Your task to perform on an android device: clear all cookies in the chrome app Image 0: 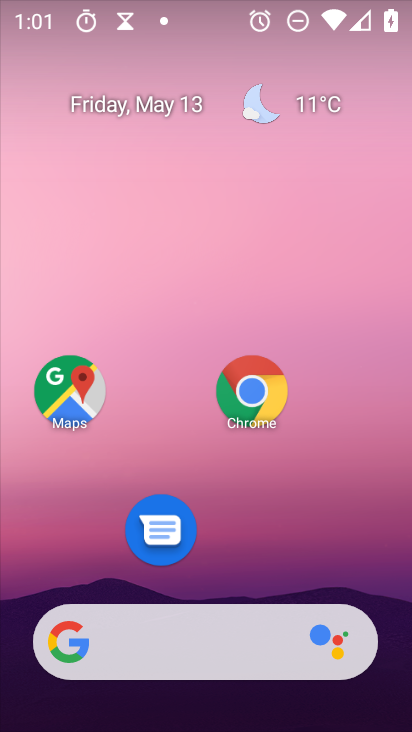
Step 0: press home button
Your task to perform on an android device: clear all cookies in the chrome app Image 1: 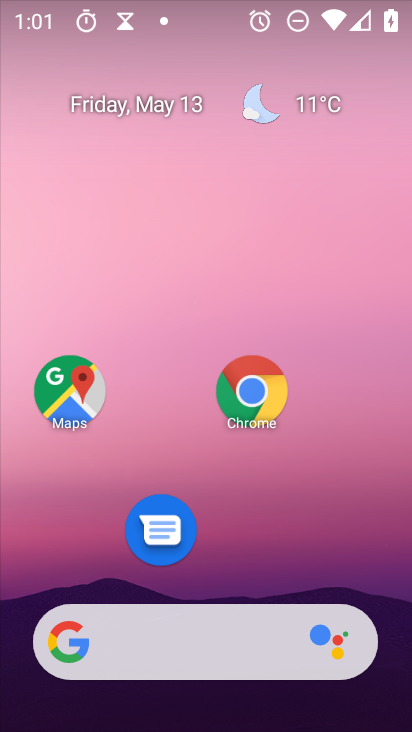
Step 1: click (253, 410)
Your task to perform on an android device: clear all cookies in the chrome app Image 2: 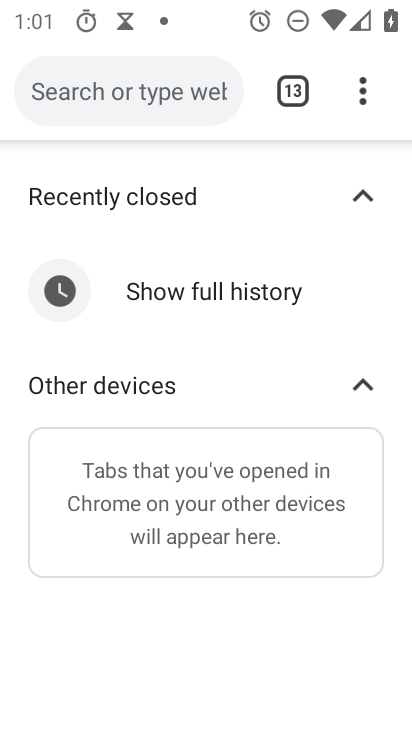
Step 2: drag from (361, 97) to (205, 559)
Your task to perform on an android device: clear all cookies in the chrome app Image 3: 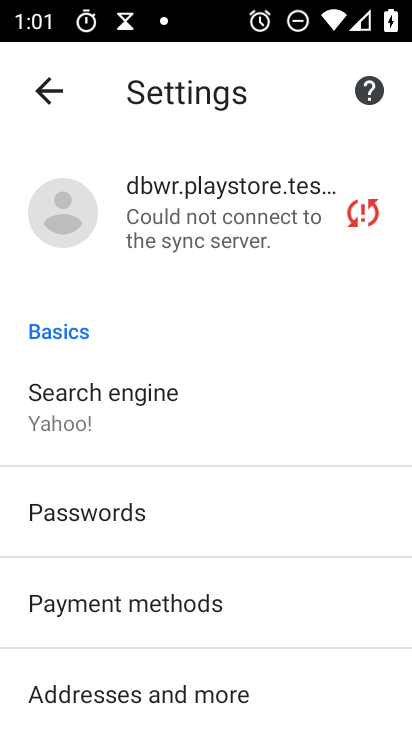
Step 3: drag from (215, 655) to (232, 373)
Your task to perform on an android device: clear all cookies in the chrome app Image 4: 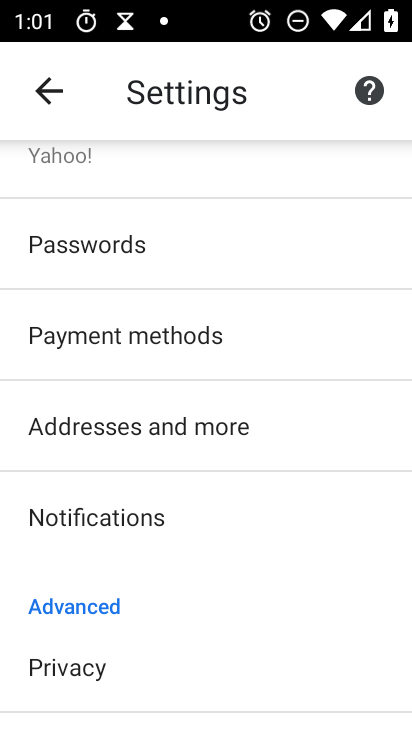
Step 4: drag from (209, 676) to (286, 297)
Your task to perform on an android device: clear all cookies in the chrome app Image 5: 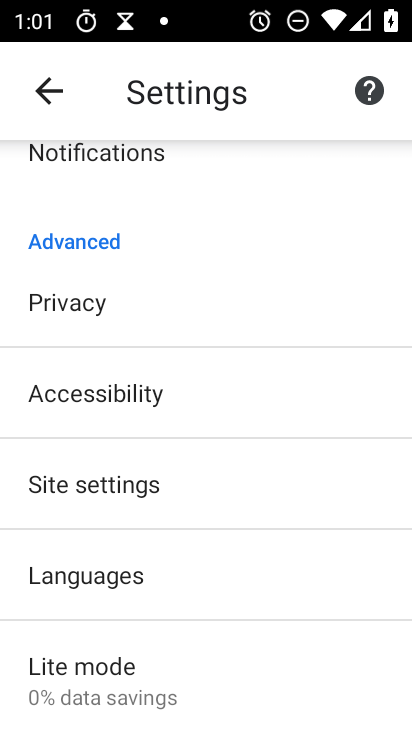
Step 5: click (86, 300)
Your task to perform on an android device: clear all cookies in the chrome app Image 6: 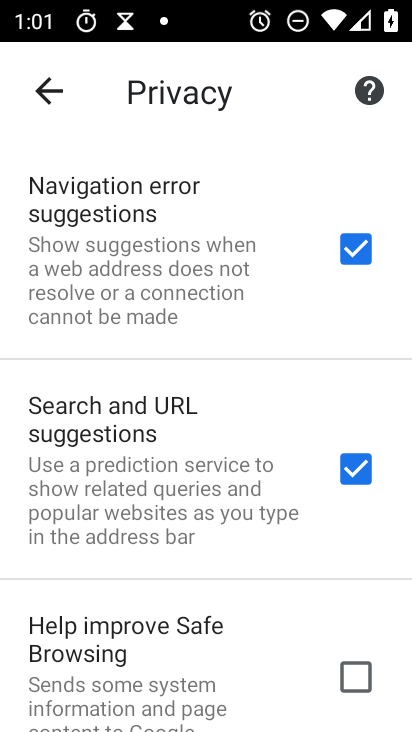
Step 6: drag from (211, 695) to (307, 92)
Your task to perform on an android device: clear all cookies in the chrome app Image 7: 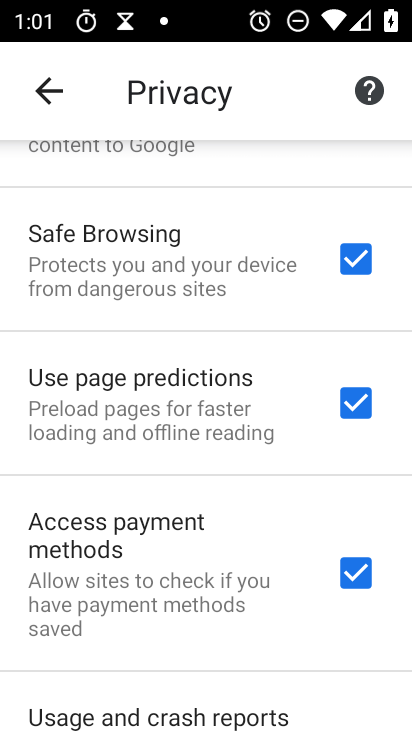
Step 7: drag from (221, 659) to (328, 126)
Your task to perform on an android device: clear all cookies in the chrome app Image 8: 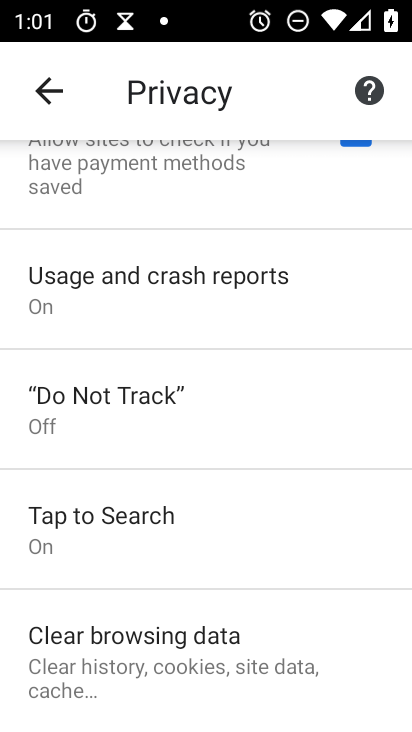
Step 8: drag from (235, 633) to (348, 79)
Your task to perform on an android device: clear all cookies in the chrome app Image 9: 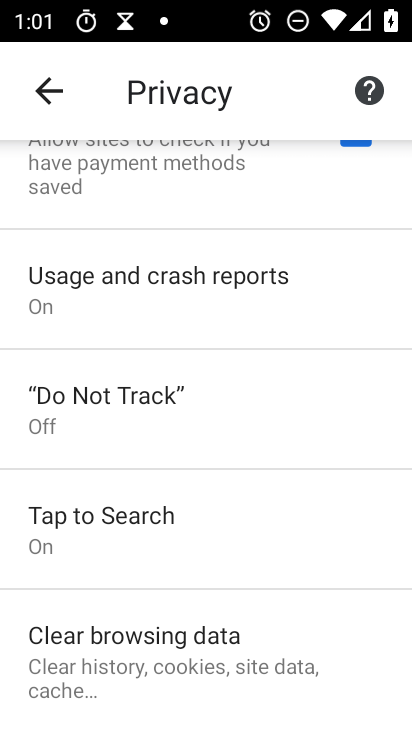
Step 9: click (191, 645)
Your task to perform on an android device: clear all cookies in the chrome app Image 10: 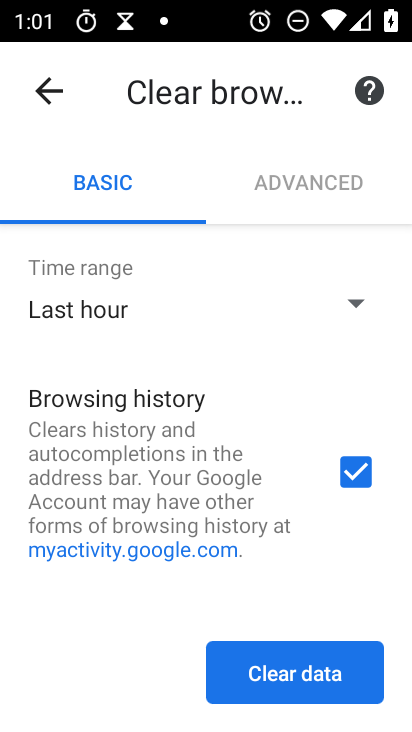
Step 10: click (357, 464)
Your task to perform on an android device: clear all cookies in the chrome app Image 11: 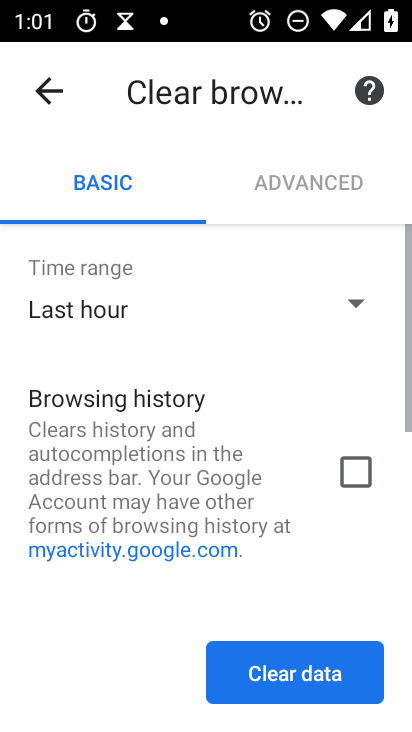
Step 11: drag from (307, 265) to (312, 199)
Your task to perform on an android device: clear all cookies in the chrome app Image 12: 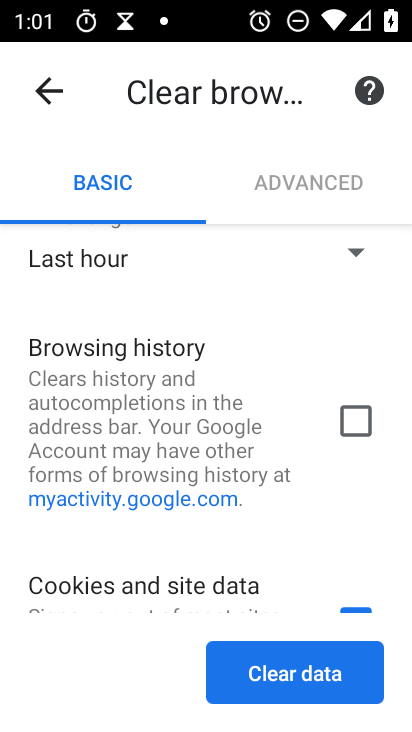
Step 12: drag from (202, 572) to (363, 124)
Your task to perform on an android device: clear all cookies in the chrome app Image 13: 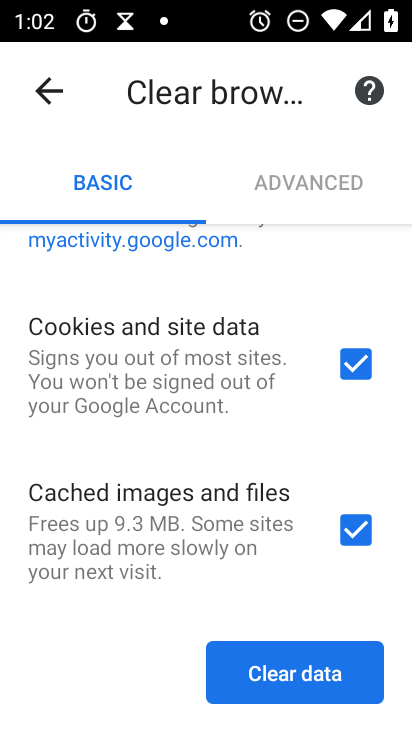
Step 13: click (362, 534)
Your task to perform on an android device: clear all cookies in the chrome app Image 14: 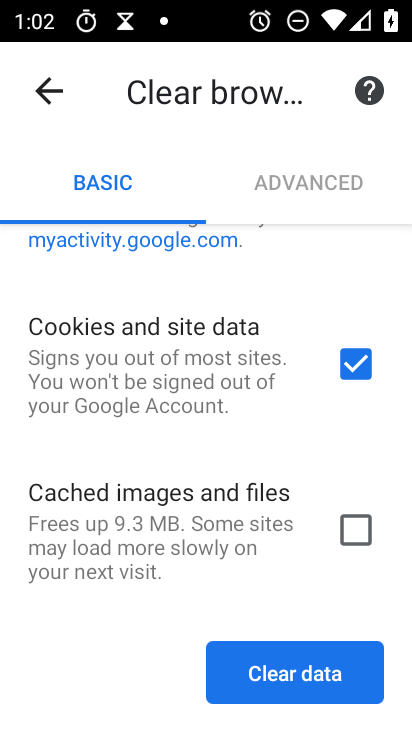
Step 14: click (290, 678)
Your task to perform on an android device: clear all cookies in the chrome app Image 15: 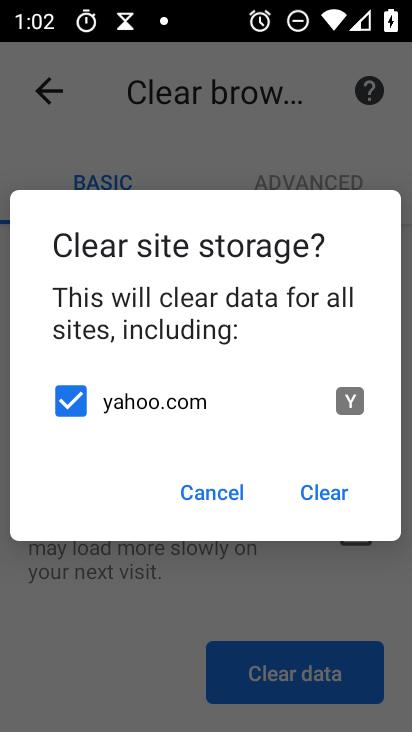
Step 15: click (318, 485)
Your task to perform on an android device: clear all cookies in the chrome app Image 16: 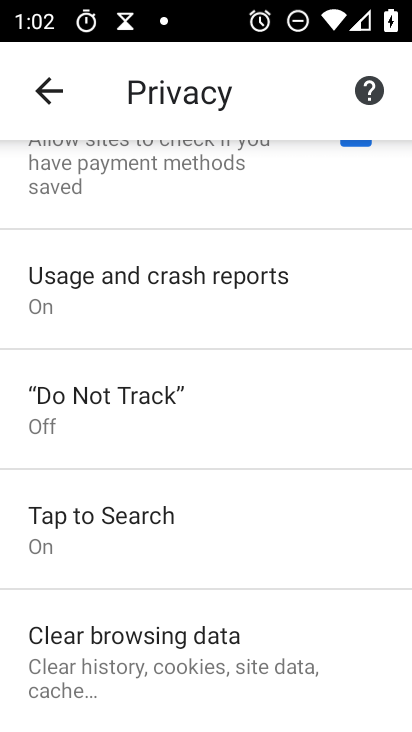
Step 16: task complete